Your task to perform on an android device: toggle improve location accuracy Image 0: 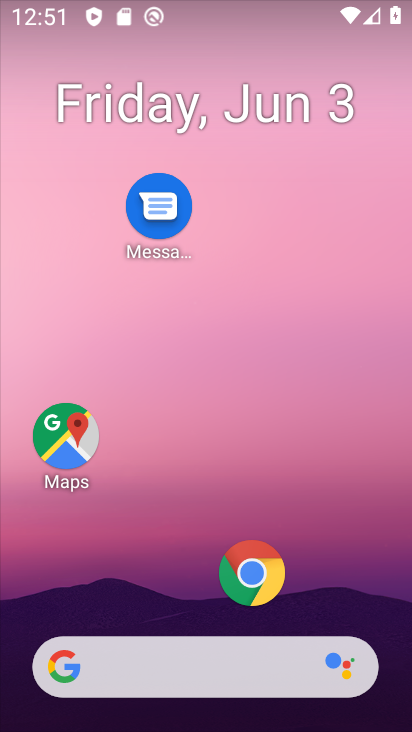
Step 0: drag from (154, 724) to (172, 38)
Your task to perform on an android device: toggle improve location accuracy Image 1: 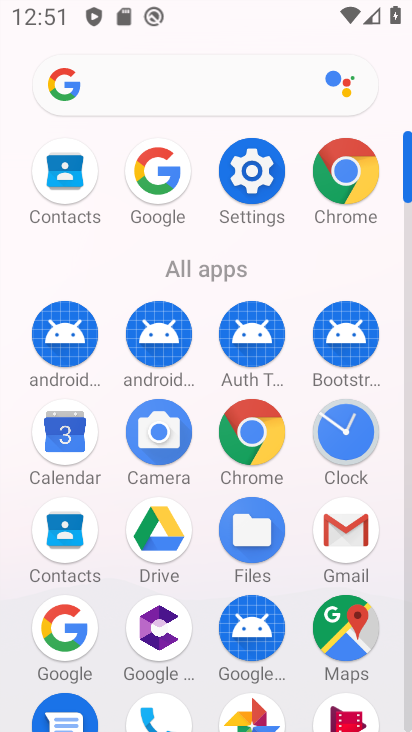
Step 1: drag from (109, 682) to (82, 230)
Your task to perform on an android device: toggle improve location accuracy Image 2: 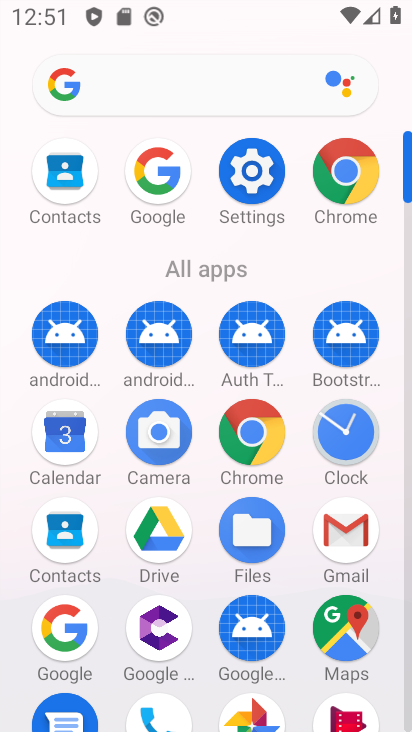
Step 2: click (255, 156)
Your task to perform on an android device: toggle improve location accuracy Image 3: 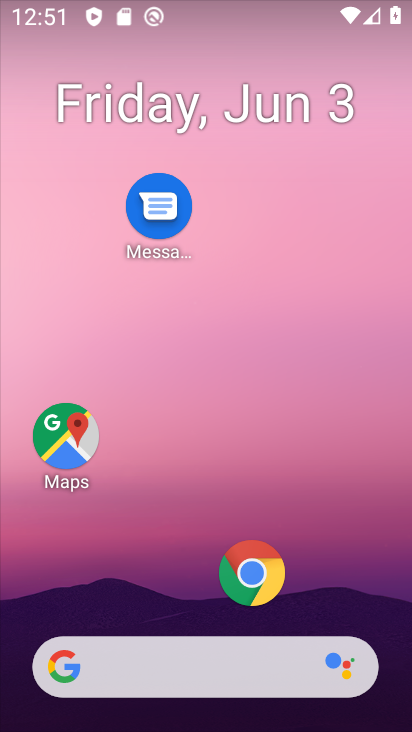
Step 3: drag from (147, 729) to (186, 7)
Your task to perform on an android device: toggle improve location accuracy Image 4: 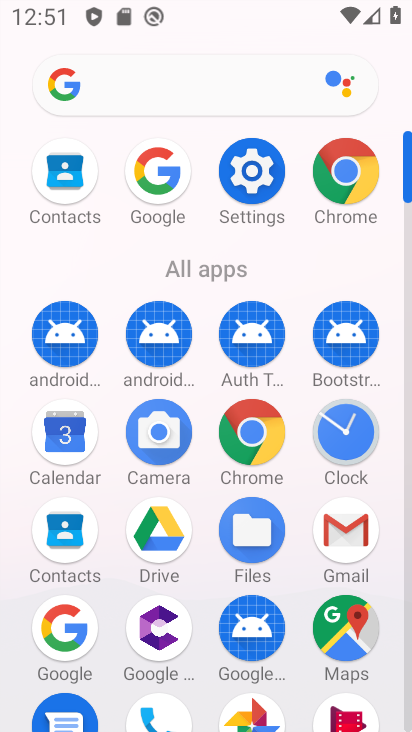
Step 4: click (258, 186)
Your task to perform on an android device: toggle improve location accuracy Image 5: 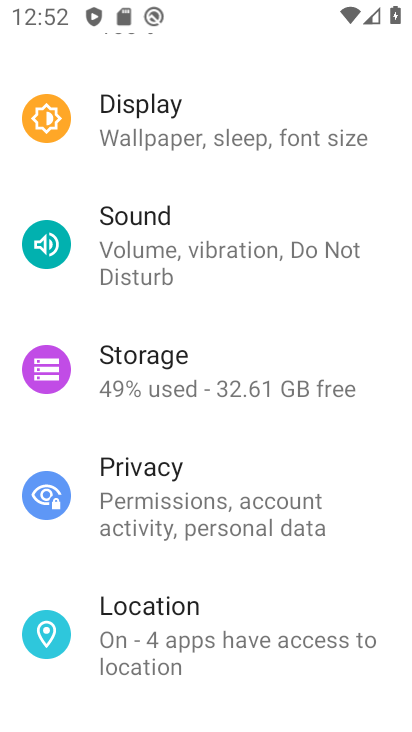
Step 5: click (146, 650)
Your task to perform on an android device: toggle improve location accuracy Image 6: 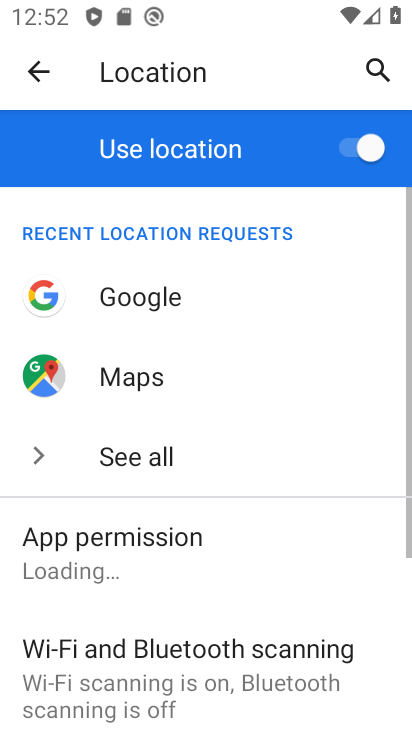
Step 6: drag from (198, 546) to (191, 203)
Your task to perform on an android device: toggle improve location accuracy Image 7: 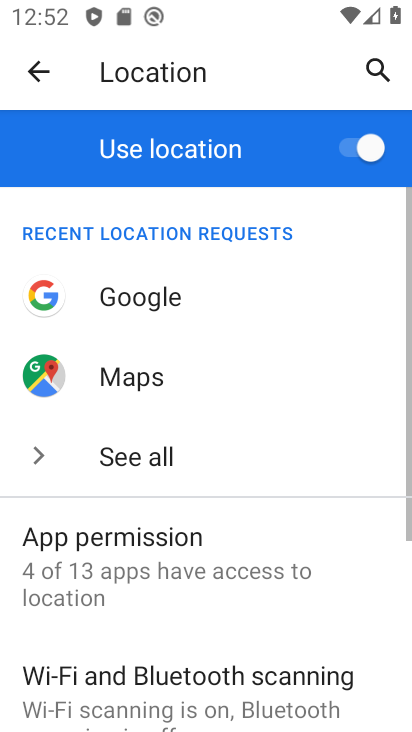
Step 7: drag from (296, 689) to (307, 219)
Your task to perform on an android device: toggle improve location accuracy Image 8: 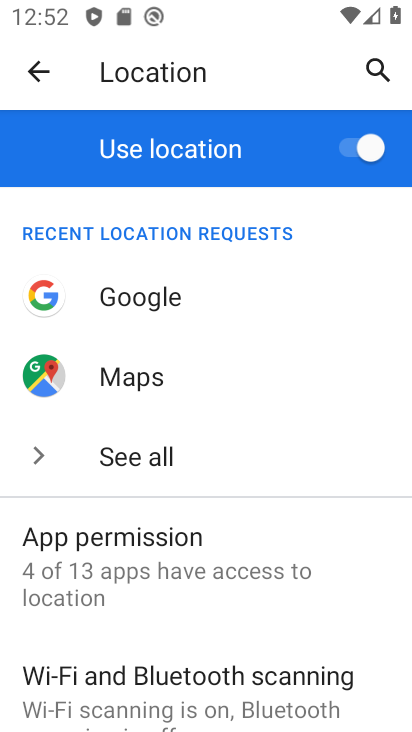
Step 8: drag from (372, 660) to (359, 272)
Your task to perform on an android device: toggle improve location accuracy Image 9: 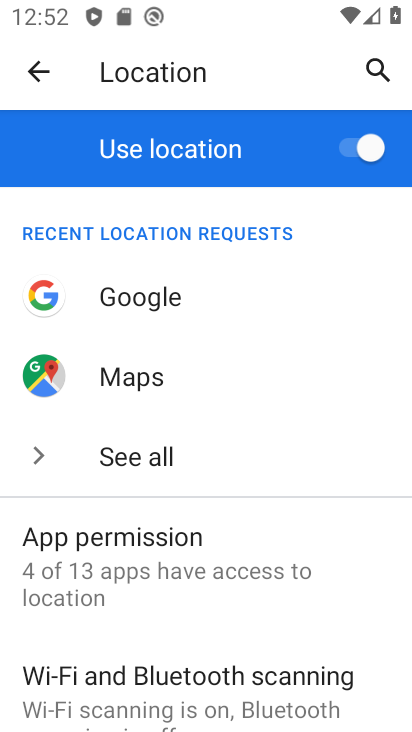
Step 9: drag from (370, 675) to (336, 308)
Your task to perform on an android device: toggle improve location accuracy Image 10: 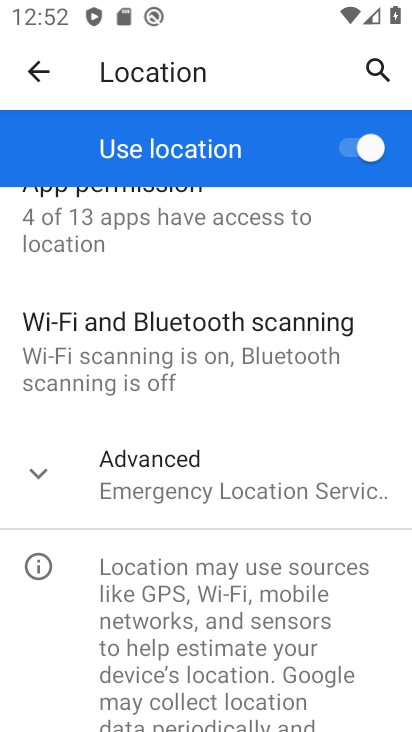
Step 10: click (172, 496)
Your task to perform on an android device: toggle improve location accuracy Image 11: 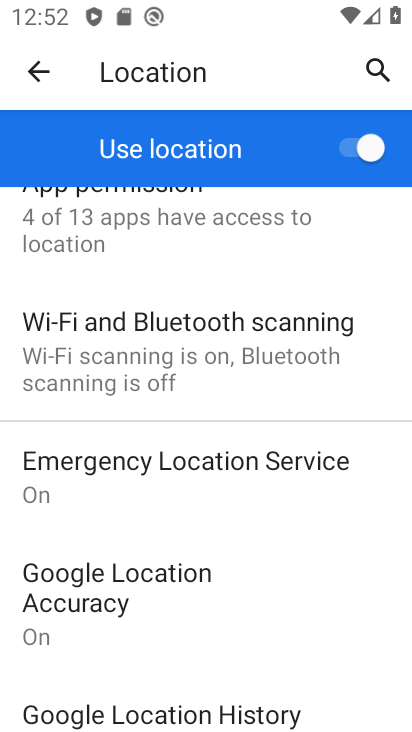
Step 11: drag from (290, 619) to (320, 279)
Your task to perform on an android device: toggle improve location accuracy Image 12: 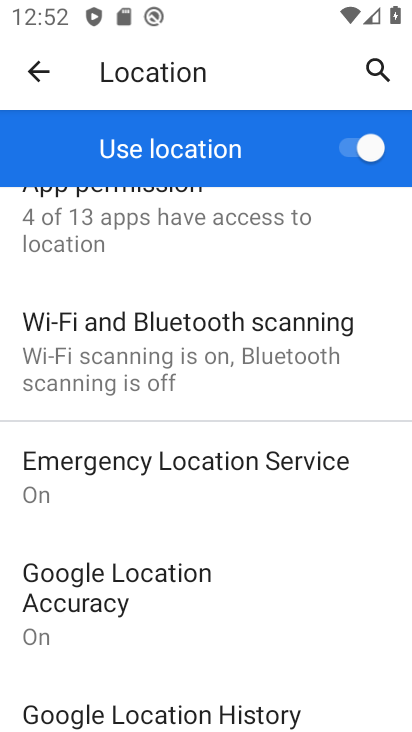
Step 12: click (78, 624)
Your task to perform on an android device: toggle improve location accuracy Image 13: 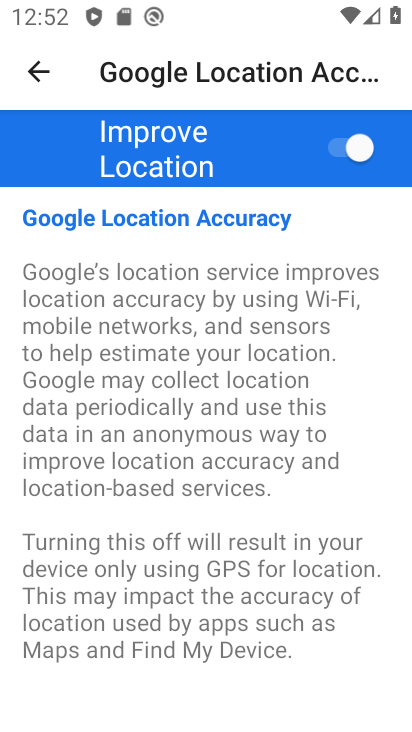
Step 13: click (340, 151)
Your task to perform on an android device: toggle improve location accuracy Image 14: 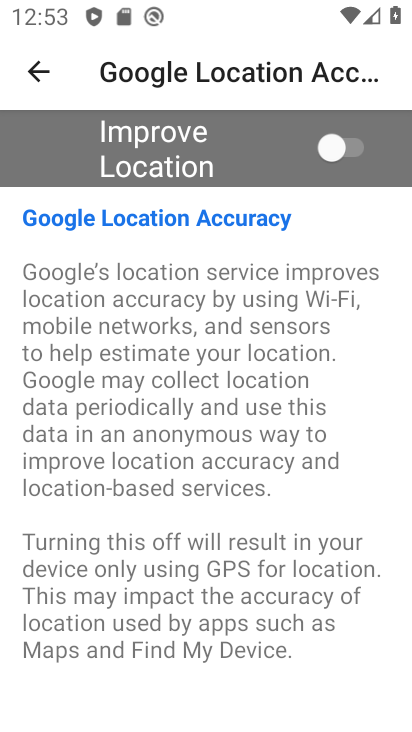
Step 14: task complete